Your task to perform on an android device: Go to Android settings Image 0: 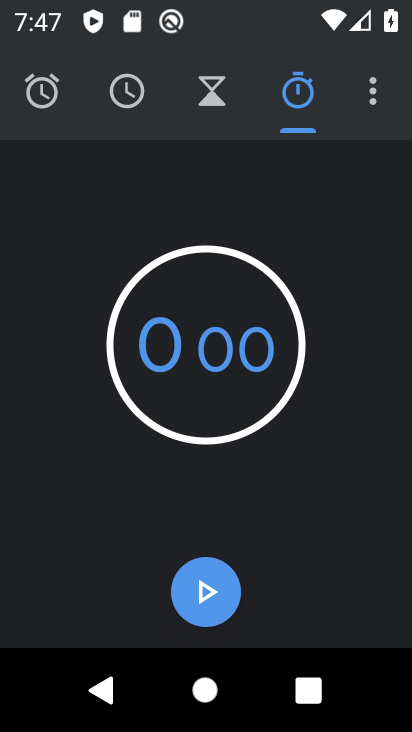
Step 0: press home button
Your task to perform on an android device: Go to Android settings Image 1: 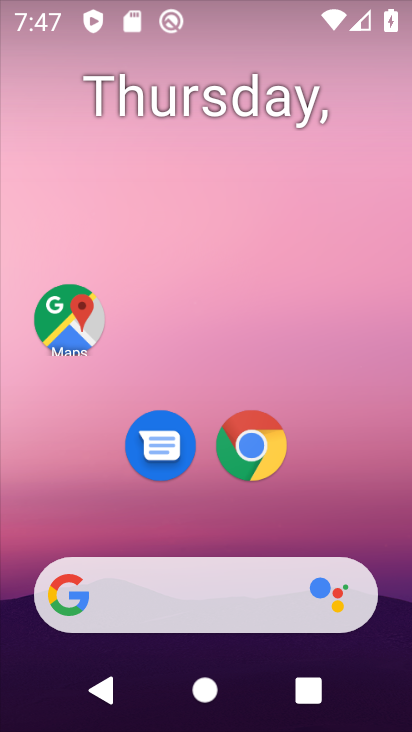
Step 1: drag from (331, 539) to (385, 9)
Your task to perform on an android device: Go to Android settings Image 2: 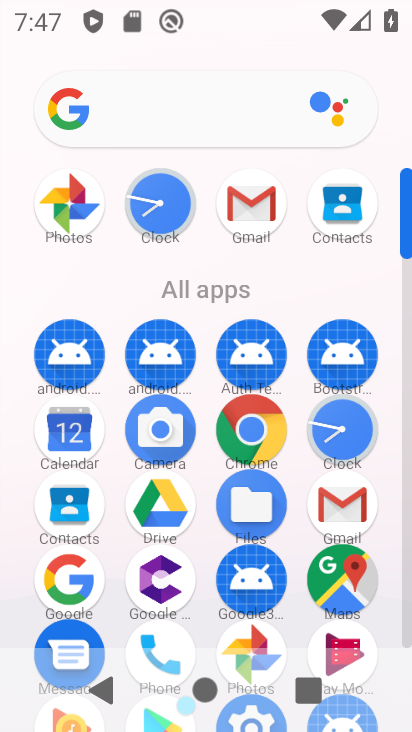
Step 2: drag from (409, 569) to (409, 509)
Your task to perform on an android device: Go to Android settings Image 3: 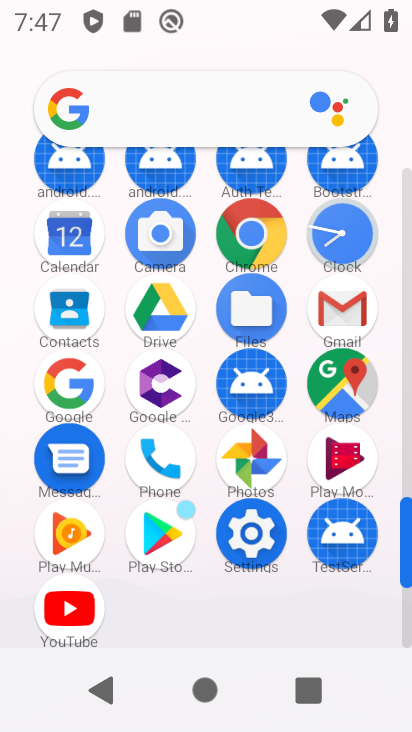
Step 3: click (245, 542)
Your task to perform on an android device: Go to Android settings Image 4: 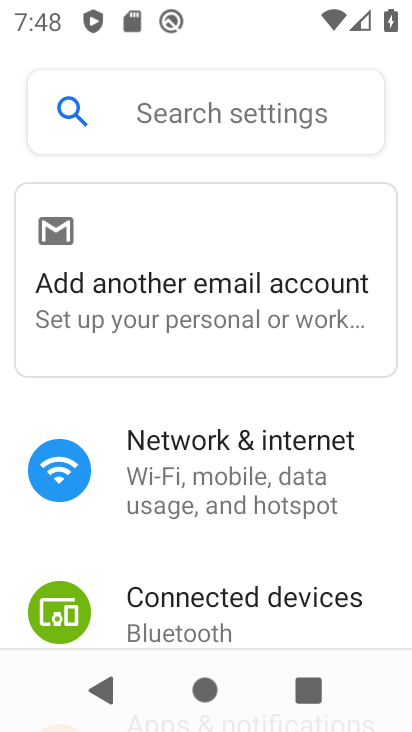
Step 4: task complete